Your task to perform on an android device: open app "Google Find My Device" Image 0: 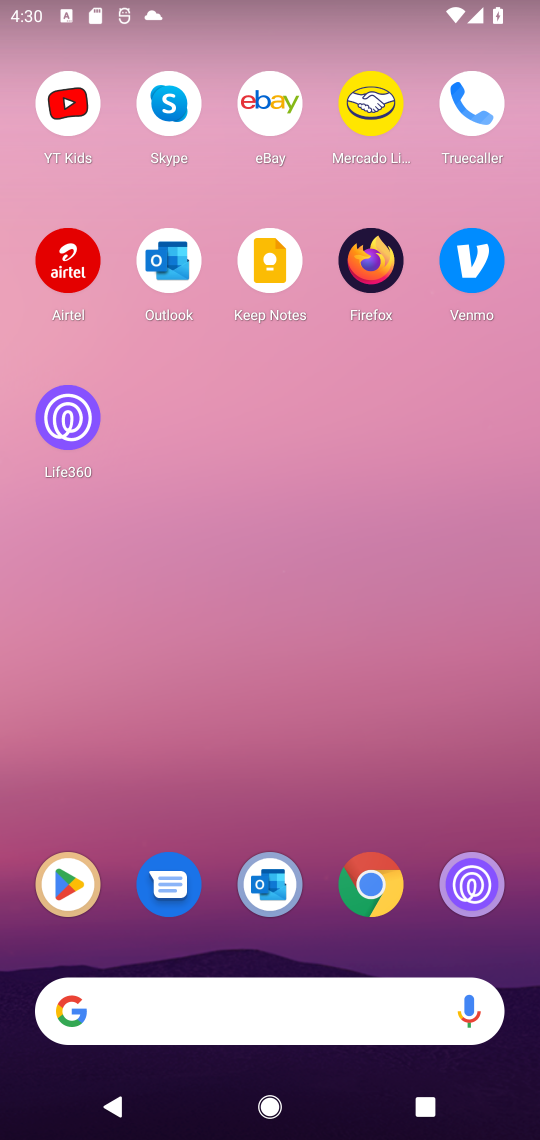
Step 0: click (45, 881)
Your task to perform on an android device: open app "Google Find My Device" Image 1: 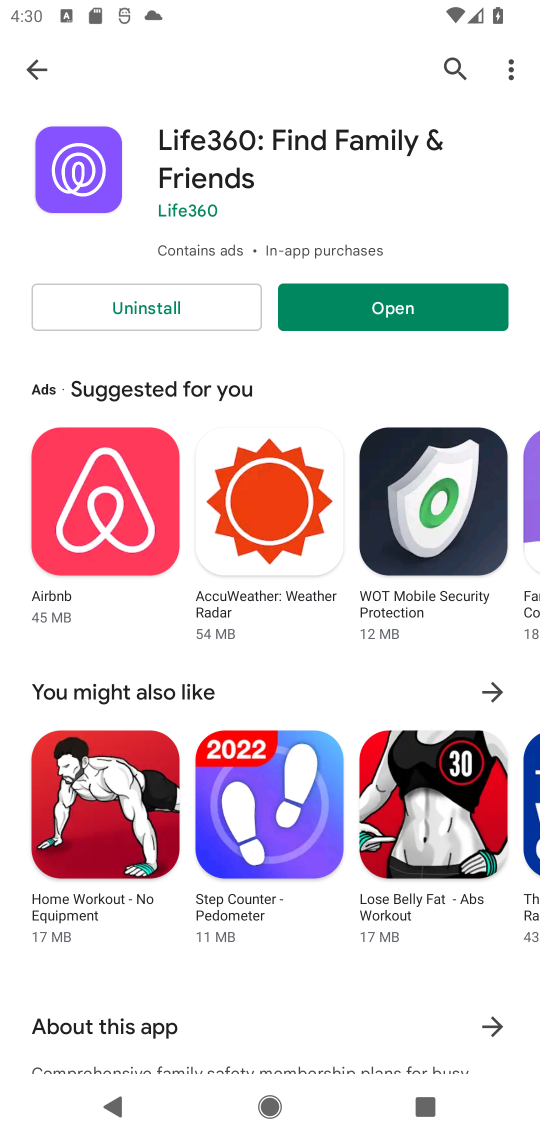
Step 1: click (33, 67)
Your task to perform on an android device: open app "Google Find My Device" Image 2: 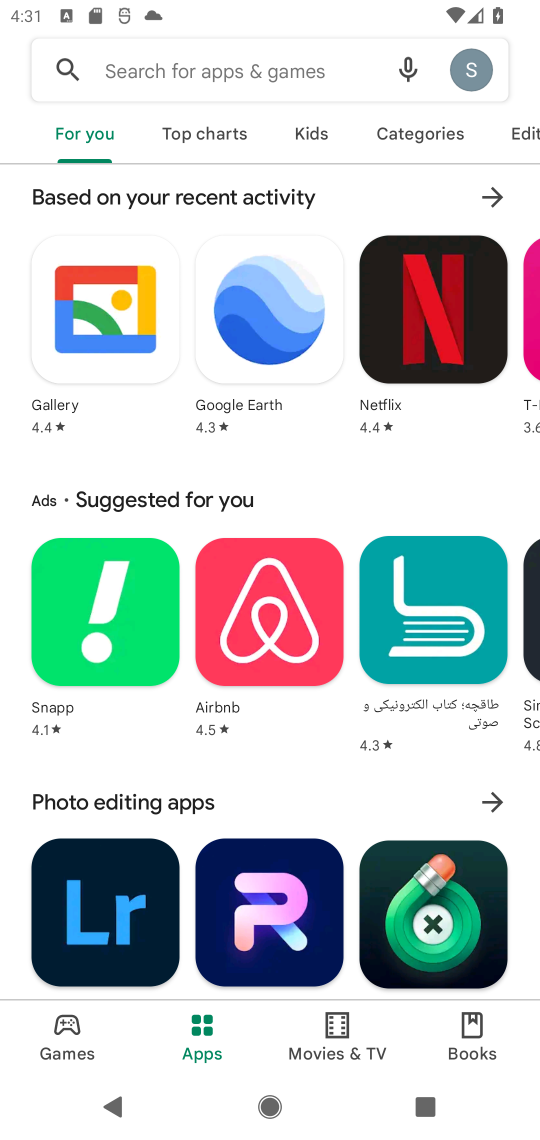
Step 2: click (188, 62)
Your task to perform on an android device: open app "Google Find My Device" Image 3: 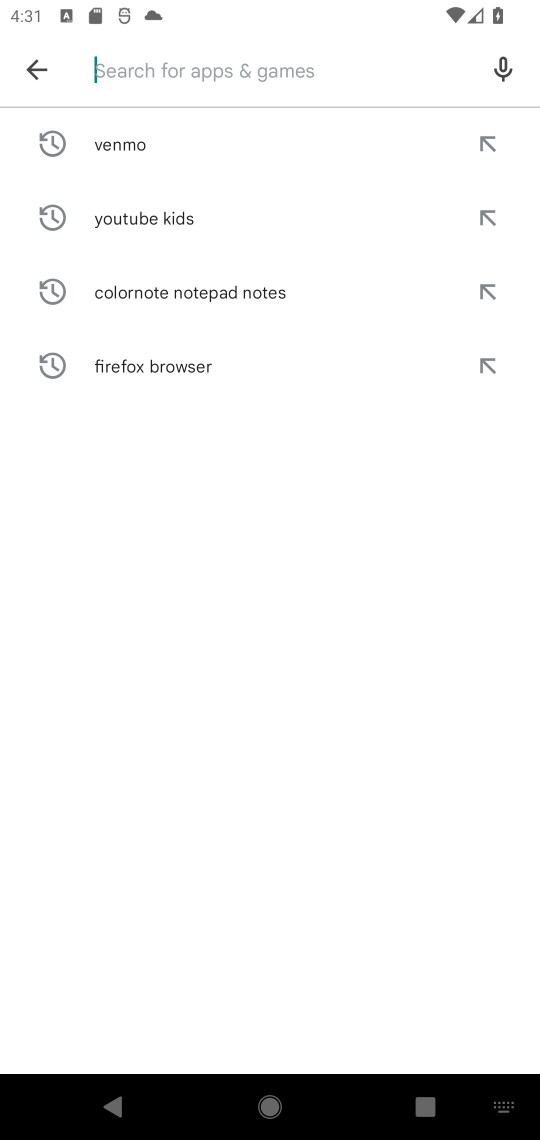
Step 3: type "Google Find My Device"
Your task to perform on an android device: open app "Google Find My Device" Image 4: 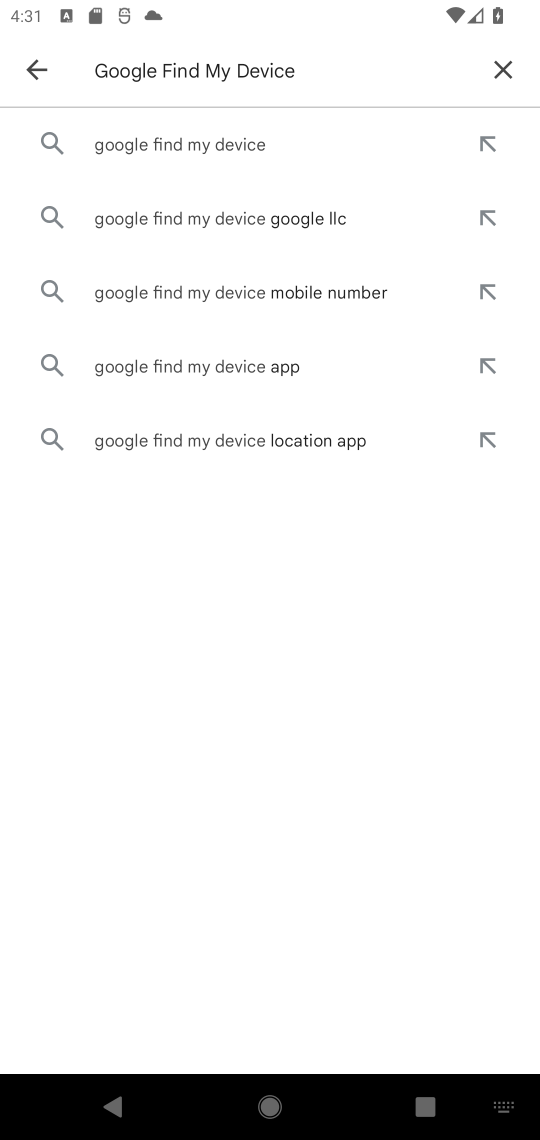
Step 4: click (196, 145)
Your task to perform on an android device: open app "Google Find My Device" Image 5: 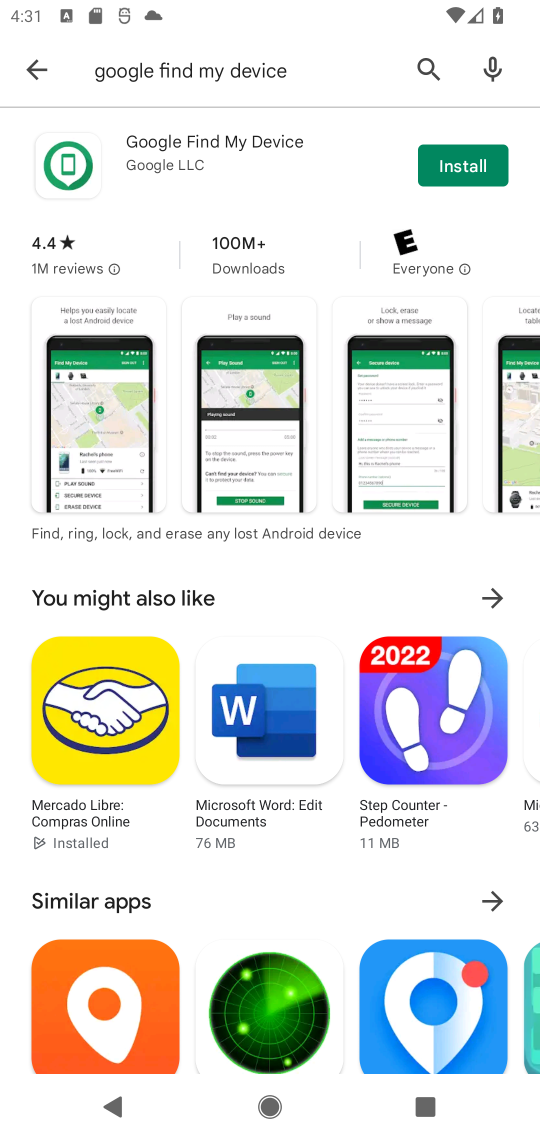
Step 5: click (491, 169)
Your task to perform on an android device: open app "Google Find My Device" Image 6: 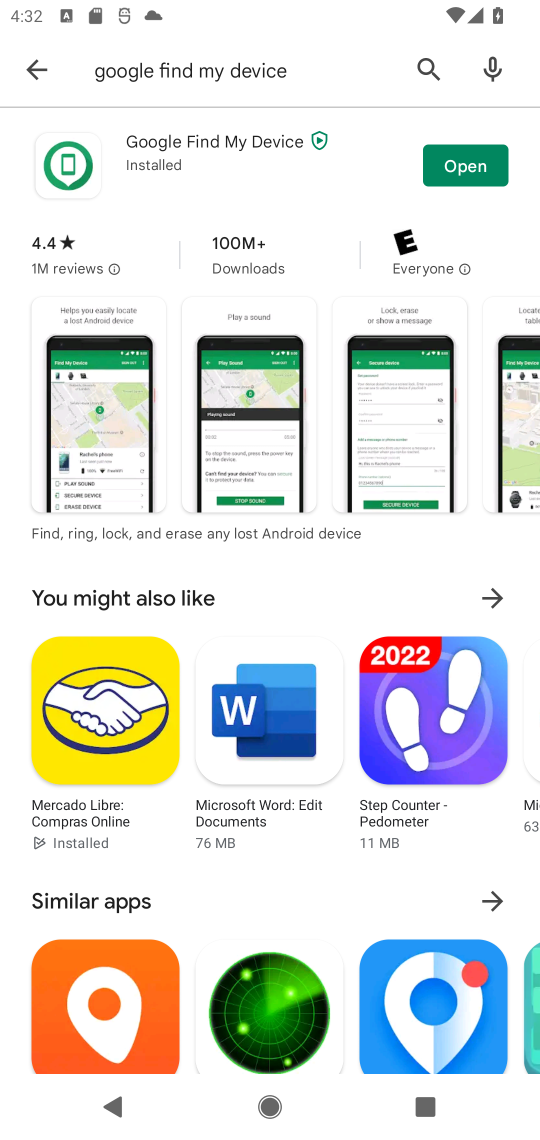
Step 6: click (444, 173)
Your task to perform on an android device: open app "Google Find My Device" Image 7: 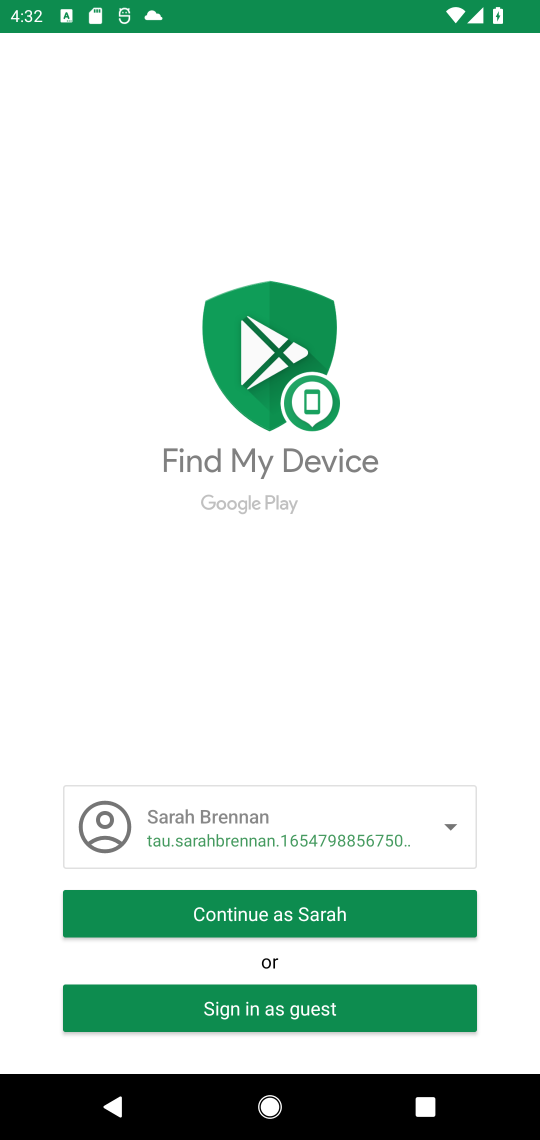
Step 7: task complete